Your task to perform on an android device: turn on bluetooth scan Image 0: 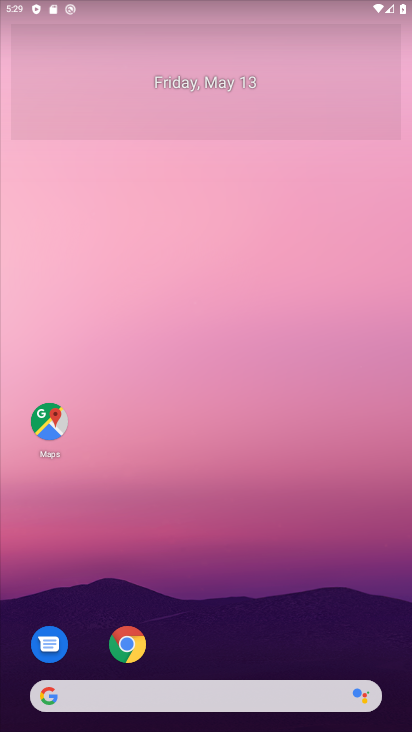
Step 0: drag from (223, 640) to (230, 2)
Your task to perform on an android device: turn on bluetooth scan Image 1: 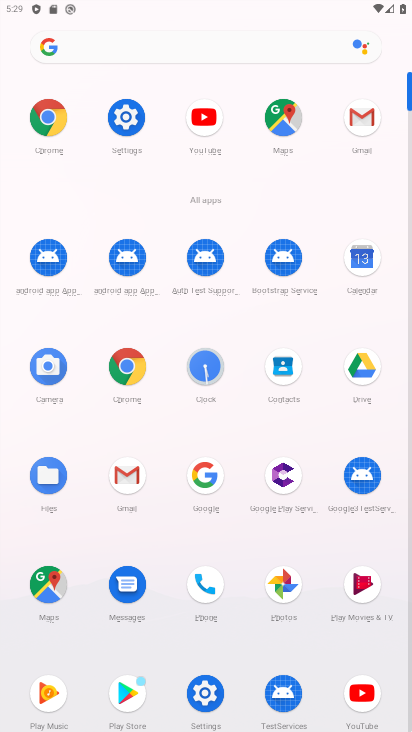
Step 1: click (128, 134)
Your task to perform on an android device: turn on bluetooth scan Image 2: 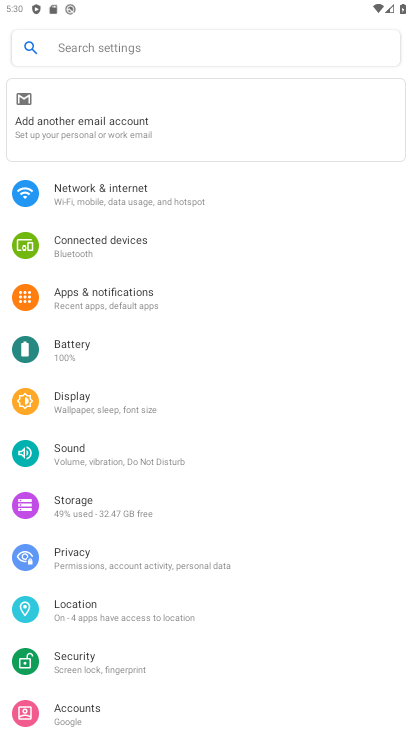
Step 2: click (110, 616)
Your task to perform on an android device: turn on bluetooth scan Image 3: 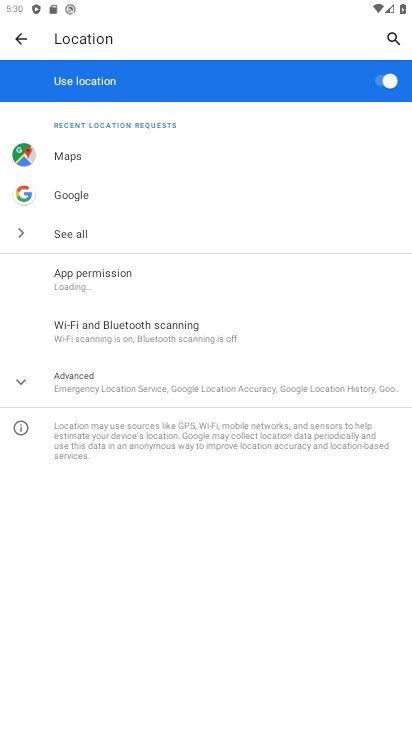
Step 3: click (134, 335)
Your task to perform on an android device: turn on bluetooth scan Image 4: 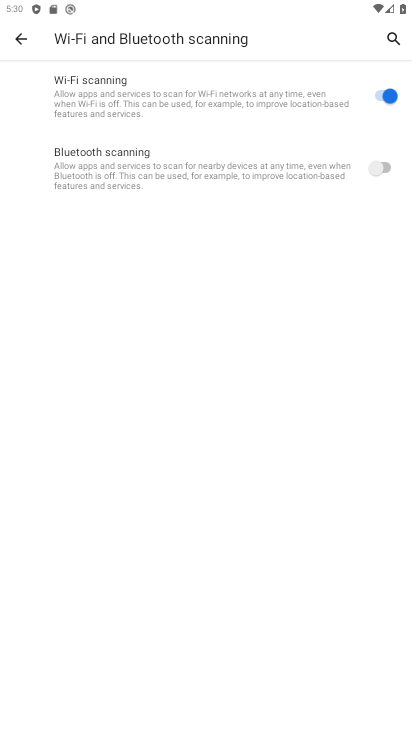
Step 4: click (386, 173)
Your task to perform on an android device: turn on bluetooth scan Image 5: 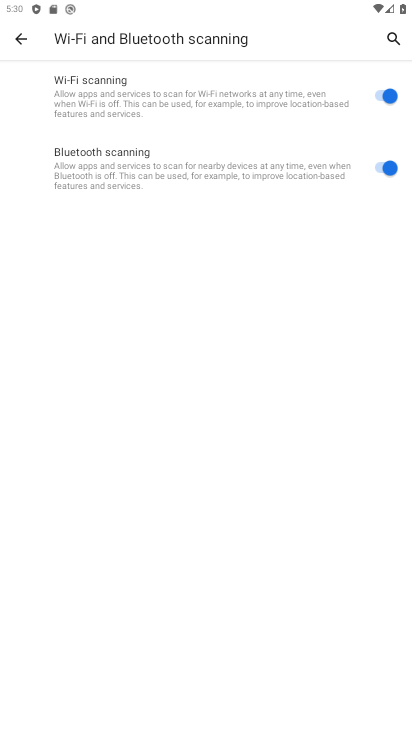
Step 5: task complete